Your task to perform on an android device: Open display settings Image 0: 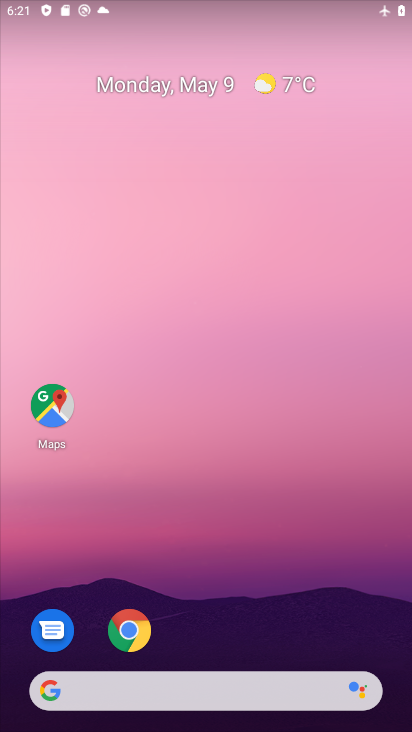
Step 0: drag from (208, 640) to (109, 51)
Your task to perform on an android device: Open display settings Image 1: 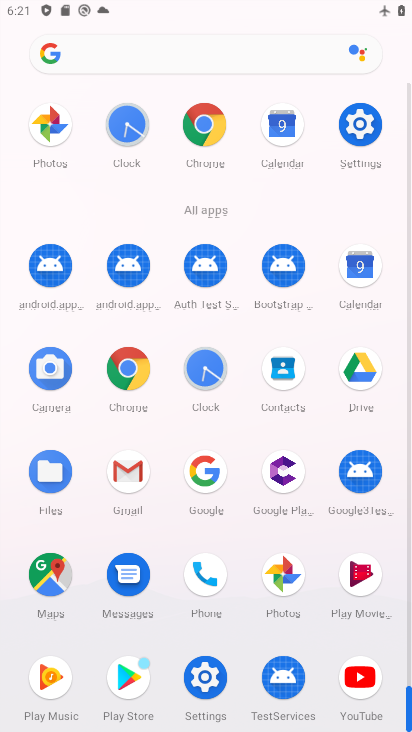
Step 1: click (203, 682)
Your task to perform on an android device: Open display settings Image 2: 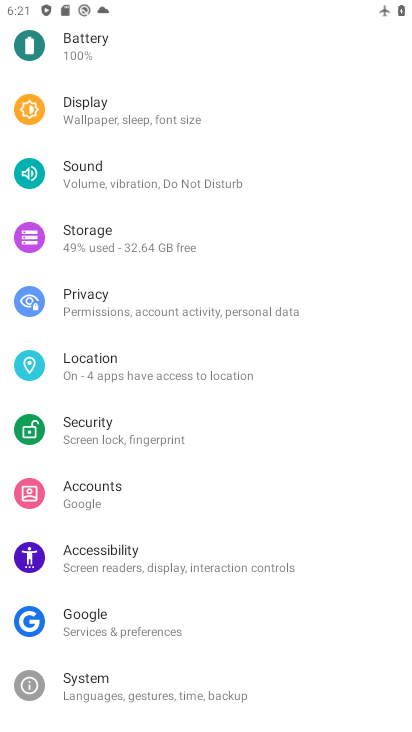
Step 2: click (93, 117)
Your task to perform on an android device: Open display settings Image 3: 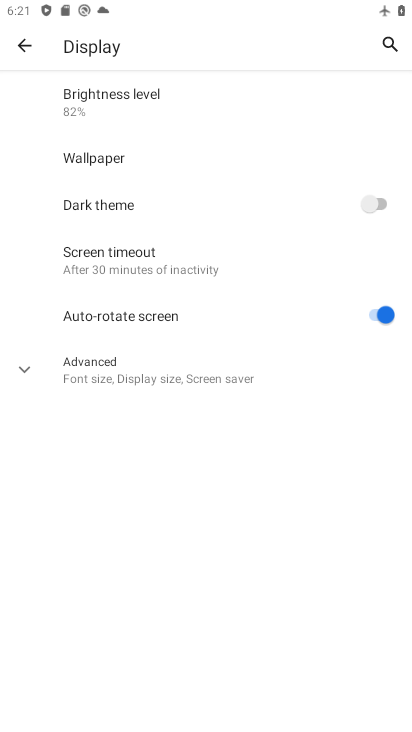
Step 3: task complete